Your task to perform on an android device: Open Google Chrome and click the shortcut for Amazon.com Image 0: 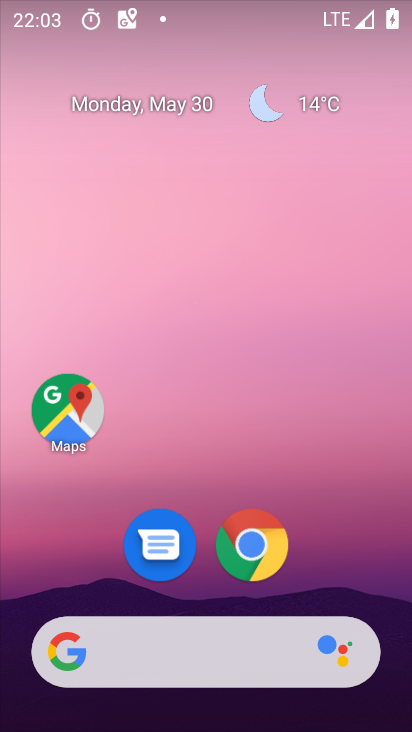
Step 0: click (248, 541)
Your task to perform on an android device: Open Google Chrome and click the shortcut for Amazon.com Image 1: 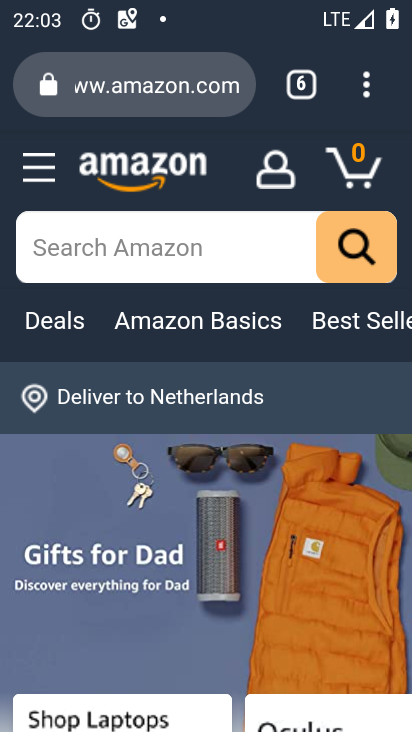
Step 1: task complete